Your task to perform on an android device: Open Android settings Image 0: 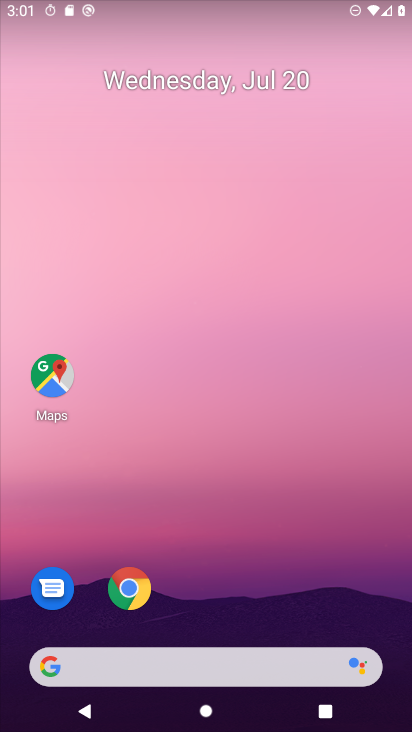
Step 0: drag from (250, 634) to (196, 55)
Your task to perform on an android device: Open Android settings Image 1: 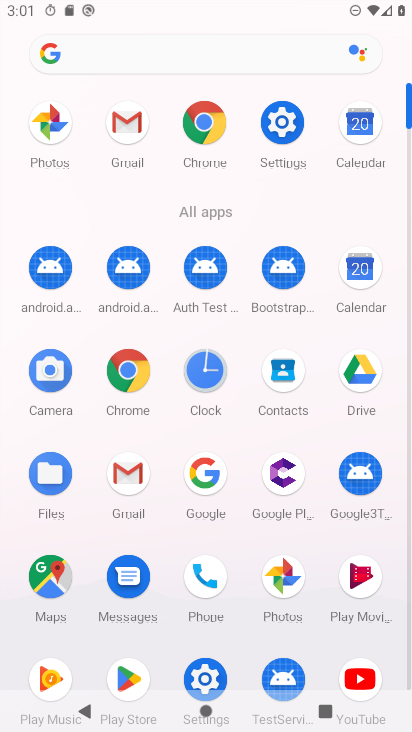
Step 1: click (286, 125)
Your task to perform on an android device: Open Android settings Image 2: 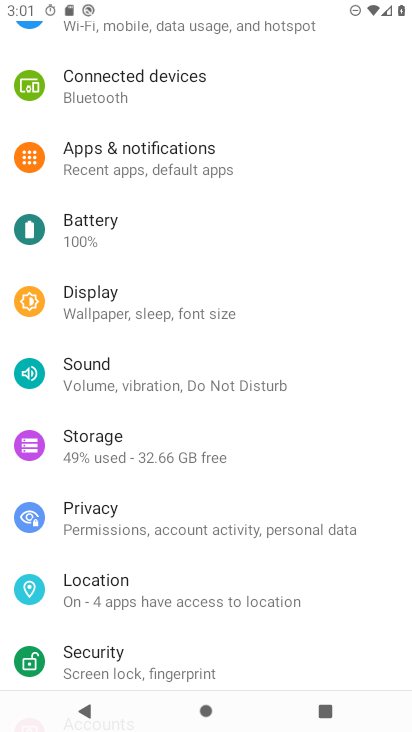
Step 2: task complete